Your task to perform on an android device: toggle priority inbox in the gmail app Image 0: 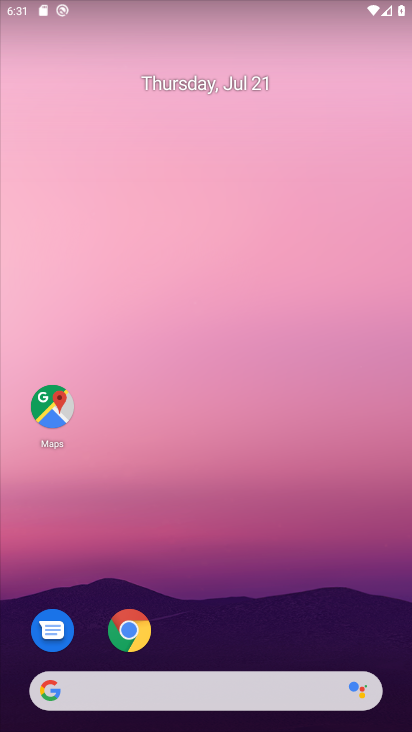
Step 0: drag from (241, 693) to (340, 316)
Your task to perform on an android device: toggle priority inbox in the gmail app Image 1: 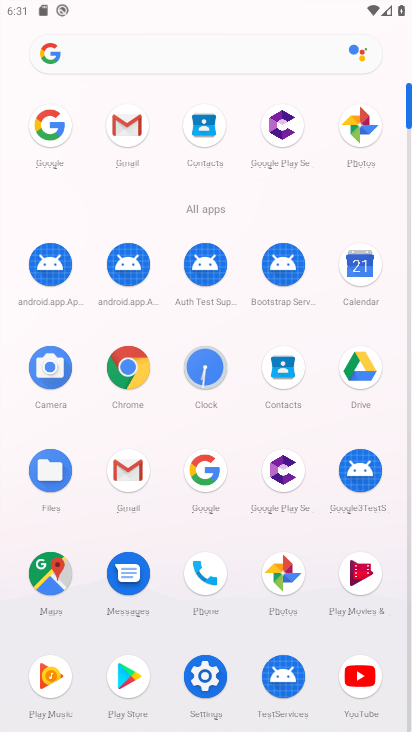
Step 1: click (127, 122)
Your task to perform on an android device: toggle priority inbox in the gmail app Image 2: 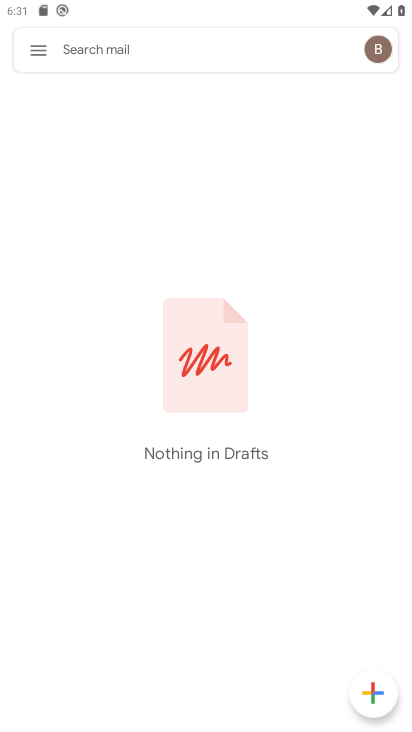
Step 2: click (32, 48)
Your task to perform on an android device: toggle priority inbox in the gmail app Image 3: 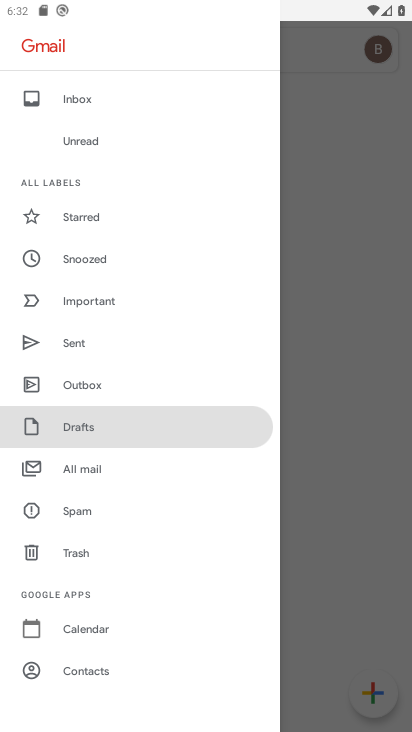
Step 3: drag from (106, 639) to (183, 527)
Your task to perform on an android device: toggle priority inbox in the gmail app Image 4: 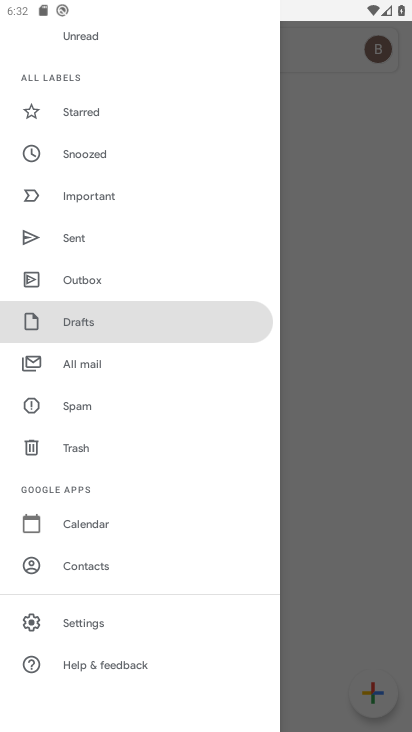
Step 4: click (102, 622)
Your task to perform on an android device: toggle priority inbox in the gmail app Image 5: 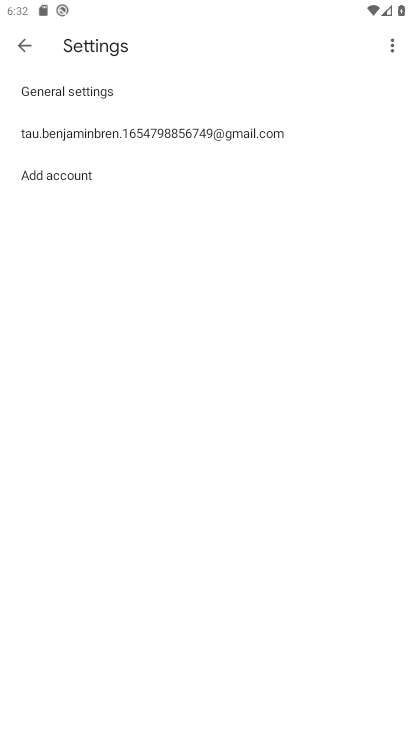
Step 5: click (169, 131)
Your task to perform on an android device: toggle priority inbox in the gmail app Image 6: 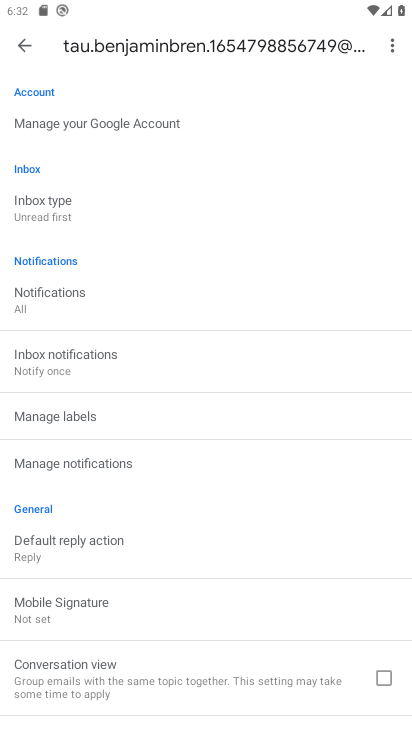
Step 6: click (101, 466)
Your task to perform on an android device: toggle priority inbox in the gmail app Image 7: 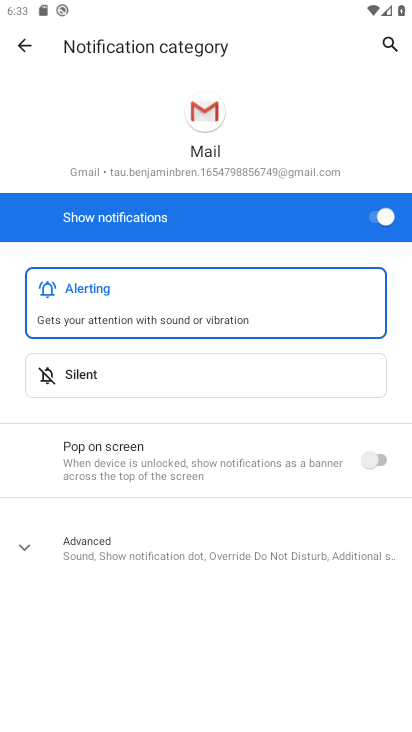
Step 7: press back button
Your task to perform on an android device: toggle priority inbox in the gmail app Image 8: 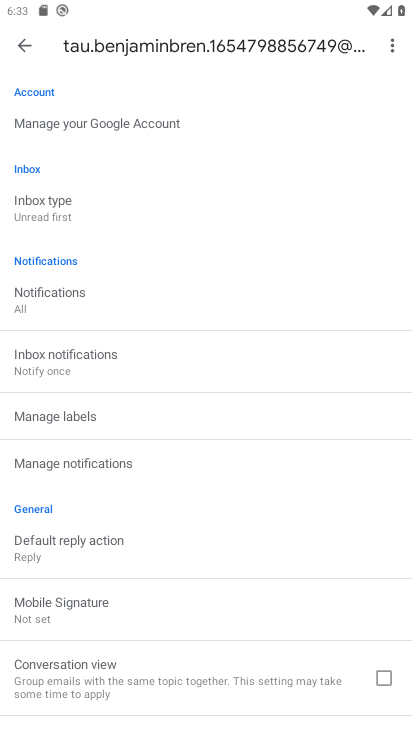
Step 8: click (54, 213)
Your task to perform on an android device: toggle priority inbox in the gmail app Image 9: 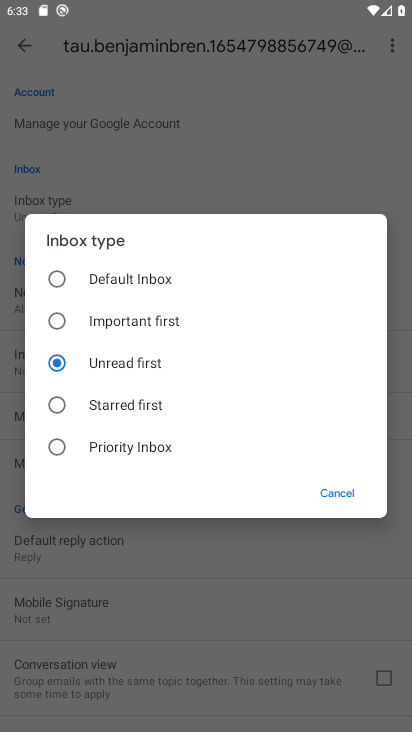
Step 9: click (56, 441)
Your task to perform on an android device: toggle priority inbox in the gmail app Image 10: 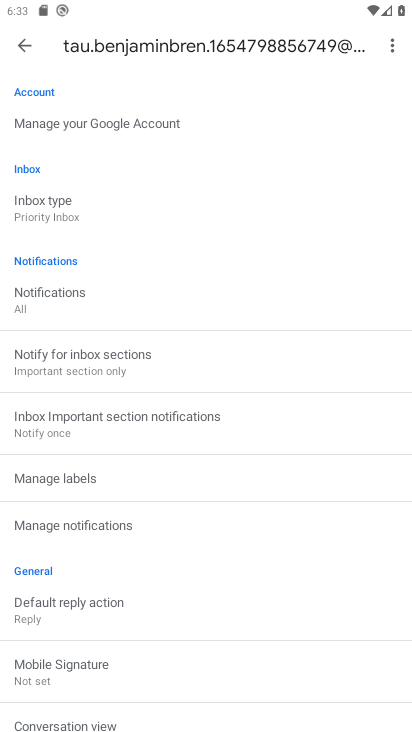
Step 10: task complete